Your task to perform on an android device: Is it going to rain today? Image 0: 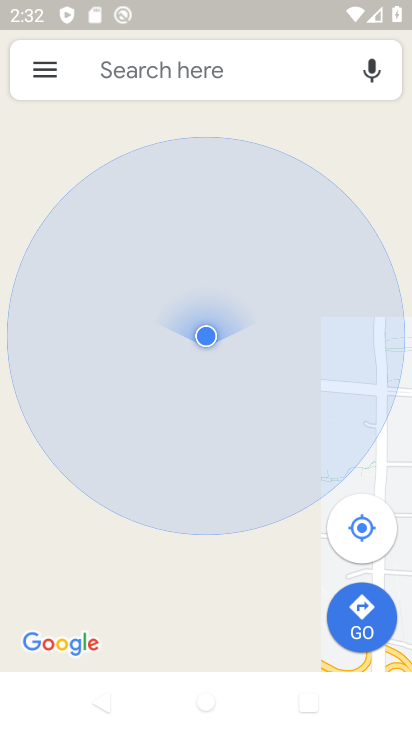
Step 0: press home button
Your task to perform on an android device: Is it going to rain today? Image 1: 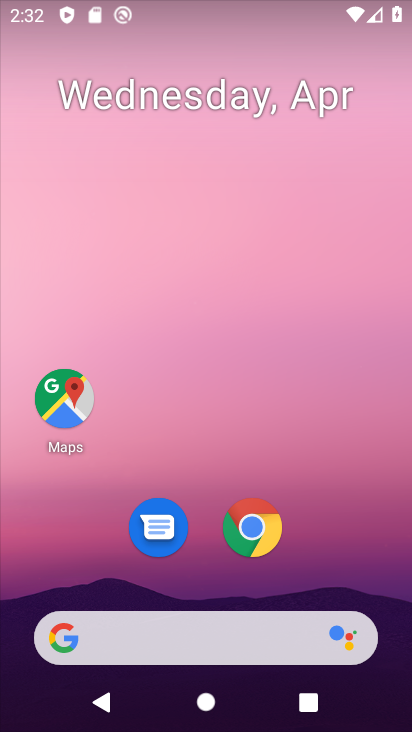
Step 1: drag from (6, 236) to (393, 262)
Your task to perform on an android device: Is it going to rain today? Image 2: 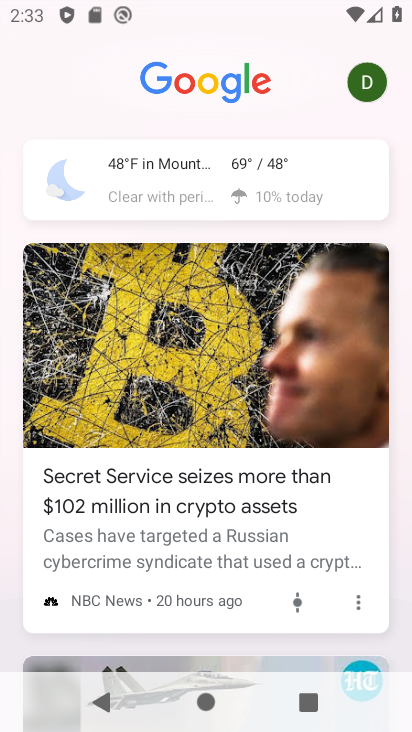
Step 2: click (175, 175)
Your task to perform on an android device: Is it going to rain today? Image 3: 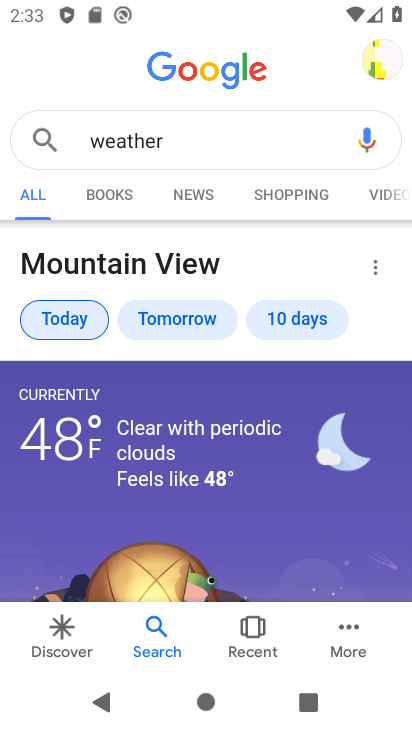
Step 3: task complete